Your task to perform on an android device: add a label to a message in the gmail app Image 0: 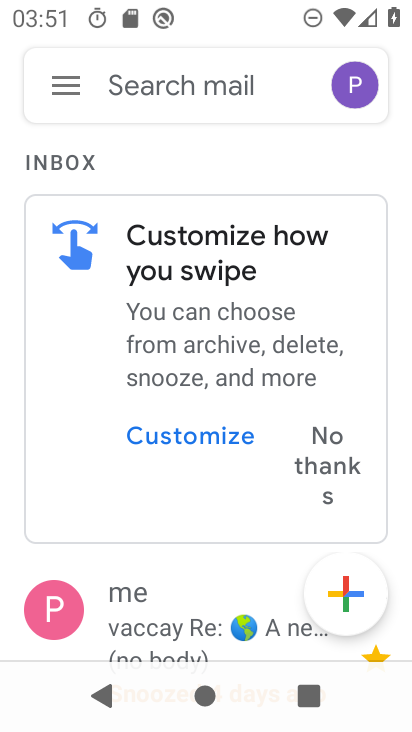
Step 0: press back button
Your task to perform on an android device: add a label to a message in the gmail app Image 1: 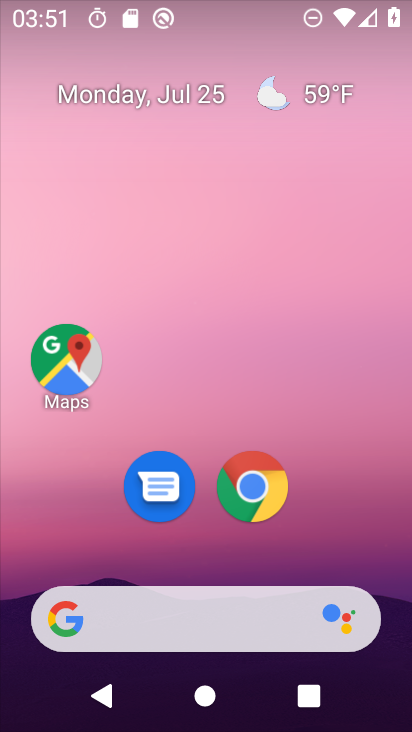
Step 1: drag from (199, 595) to (261, 2)
Your task to perform on an android device: add a label to a message in the gmail app Image 2: 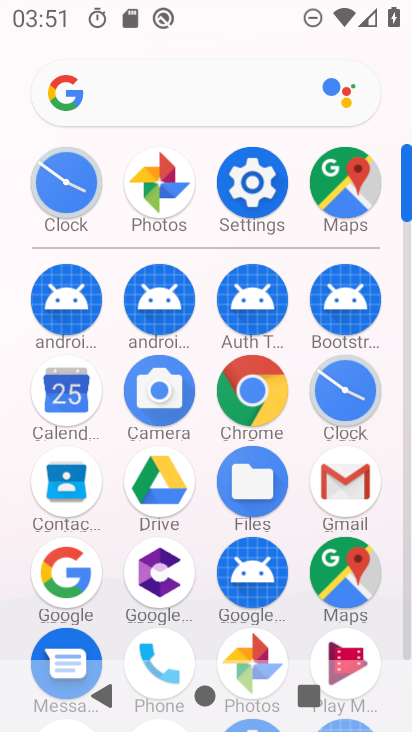
Step 2: click (337, 480)
Your task to perform on an android device: add a label to a message in the gmail app Image 3: 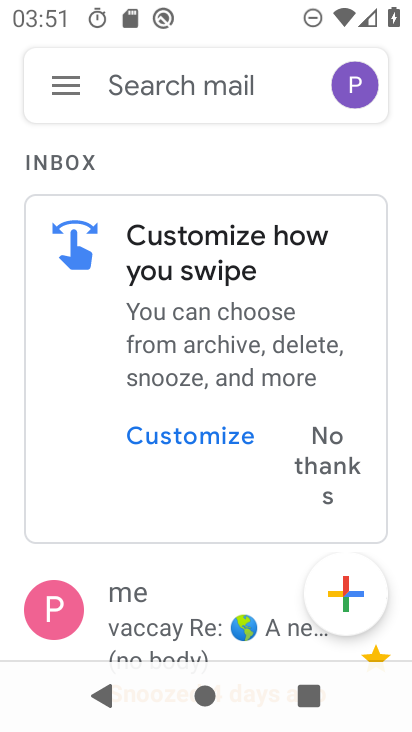
Step 3: click (65, 67)
Your task to perform on an android device: add a label to a message in the gmail app Image 4: 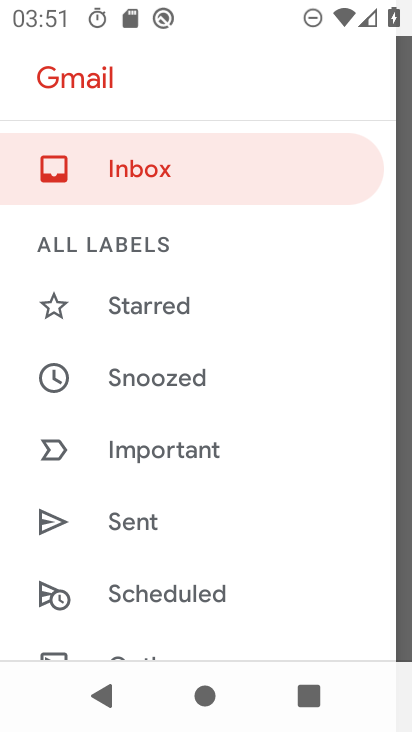
Step 4: drag from (169, 573) to (200, 3)
Your task to perform on an android device: add a label to a message in the gmail app Image 5: 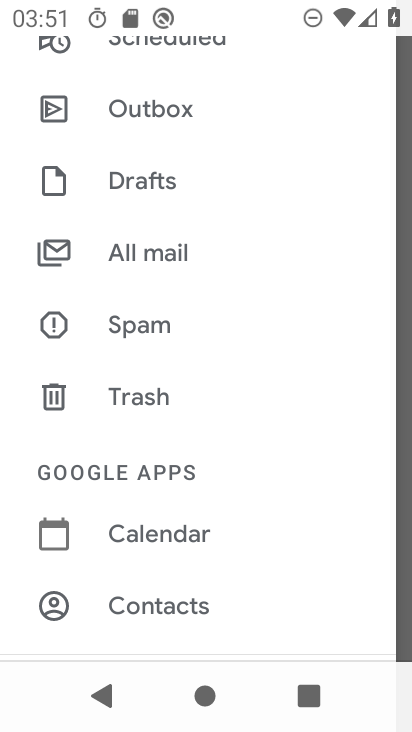
Step 5: click (149, 260)
Your task to perform on an android device: add a label to a message in the gmail app Image 6: 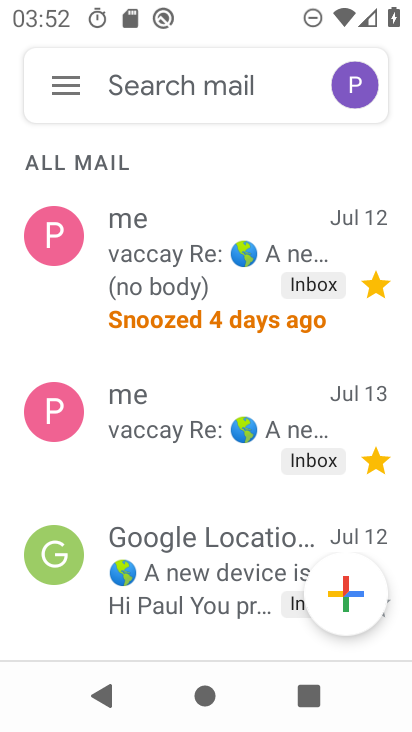
Step 6: click (175, 423)
Your task to perform on an android device: add a label to a message in the gmail app Image 7: 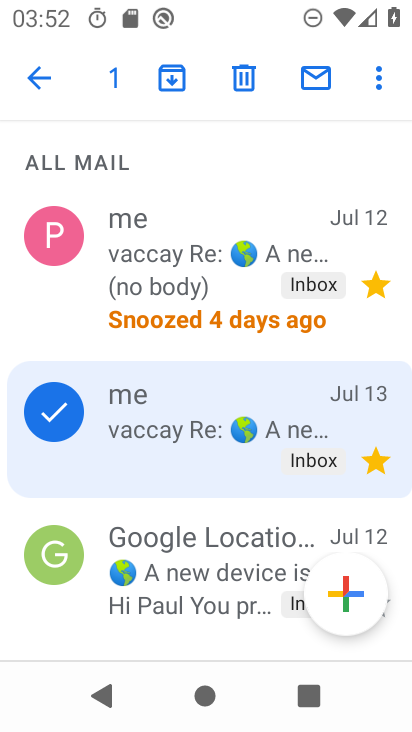
Step 7: click (382, 72)
Your task to perform on an android device: add a label to a message in the gmail app Image 8: 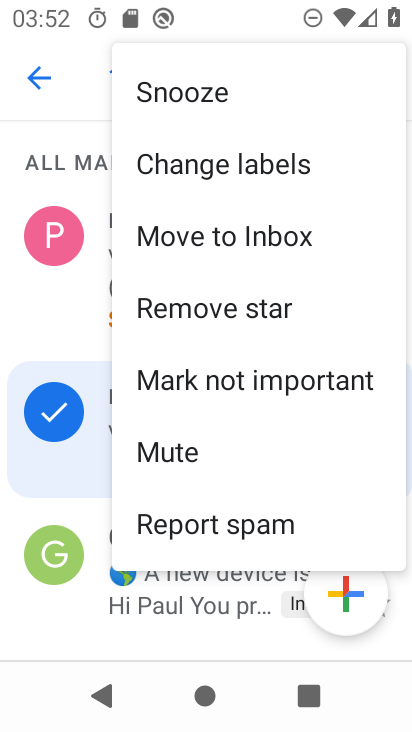
Step 8: click (267, 160)
Your task to perform on an android device: add a label to a message in the gmail app Image 9: 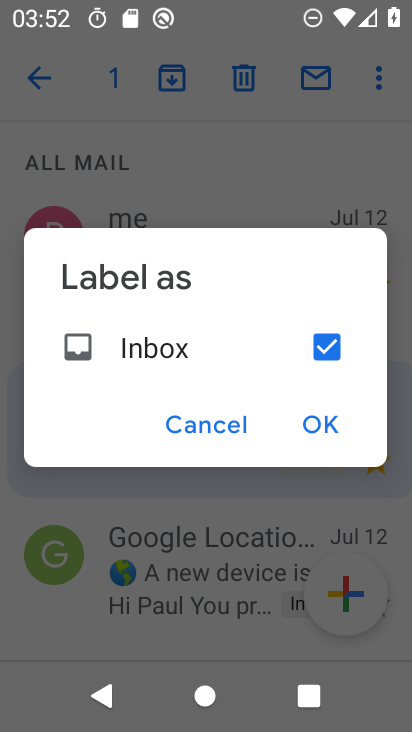
Step 9: click (323, 409)
Your task to perform on an android device: add a label to a message in the gmail app Image 10: 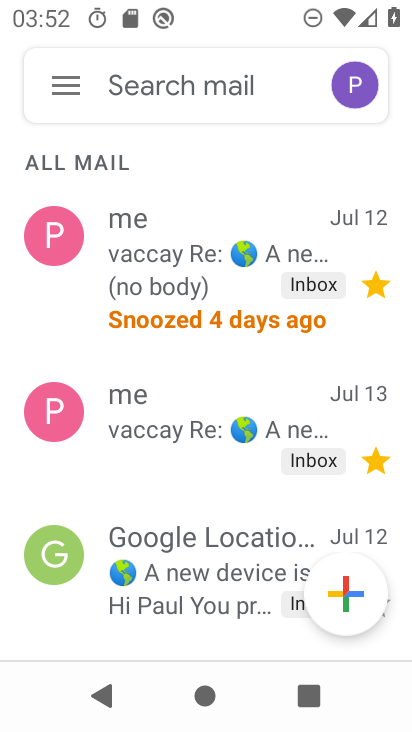
Step 10: task complete